Your task to perform on an android device: toggle sleep mode Image 0: 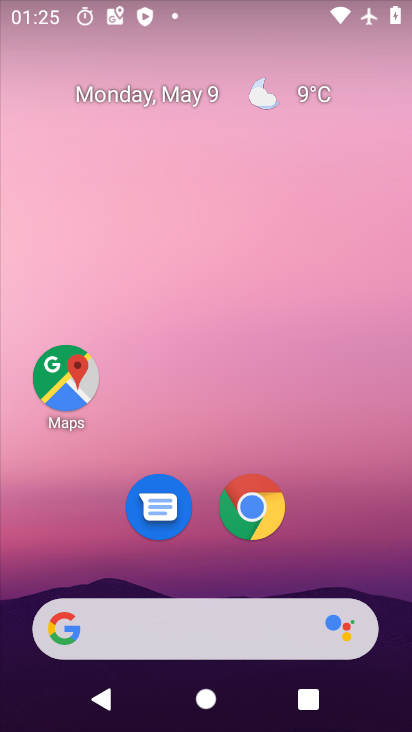
Step 0: drag from (220, 714) to (204, 168)
Your task to perform on an android device: toggle sleep mode Image 1: 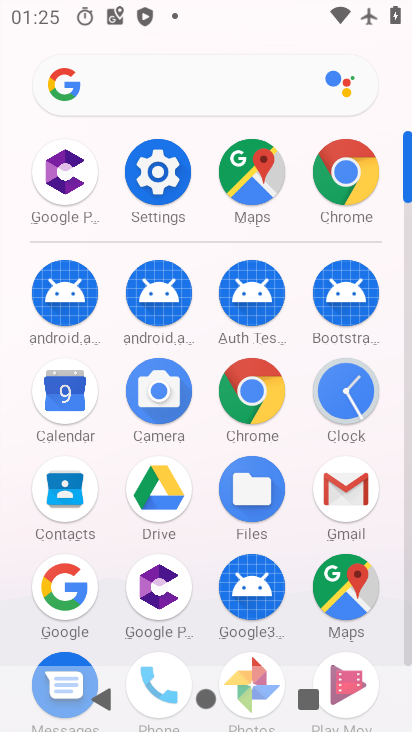
Step 1: click (159, 169)
Your task to perform on an android device: toggle sleep mode Image 2: 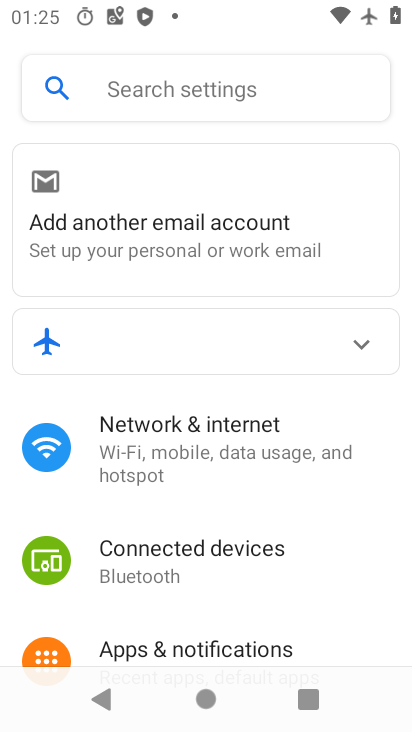
Step 2: drag from (206, 610) to (216, 211)
Your task to perform on an android device: toggle sleep mode Image 3: 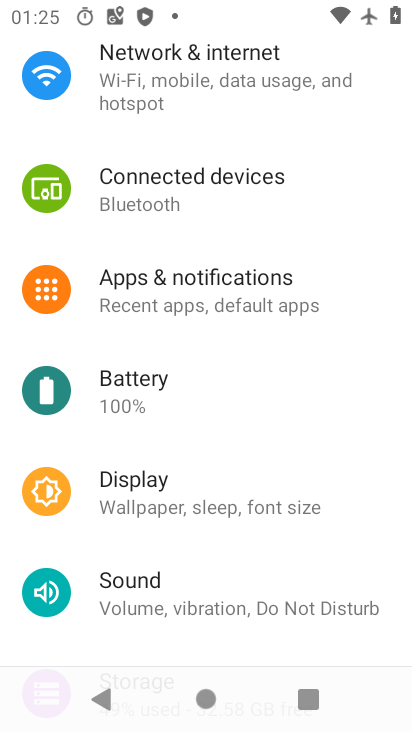
Step 3: drag from (227, 631) to (237, 236)
Your task to perform on an android device: toggle sleep mode Image 4: 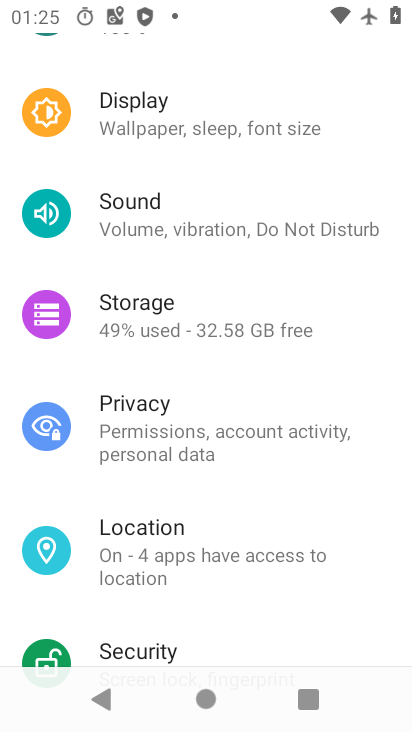
Step 4: drag from (228, 641) to (244, 118)
Your task to perform on an android device: toggle sleep mode Image 5: 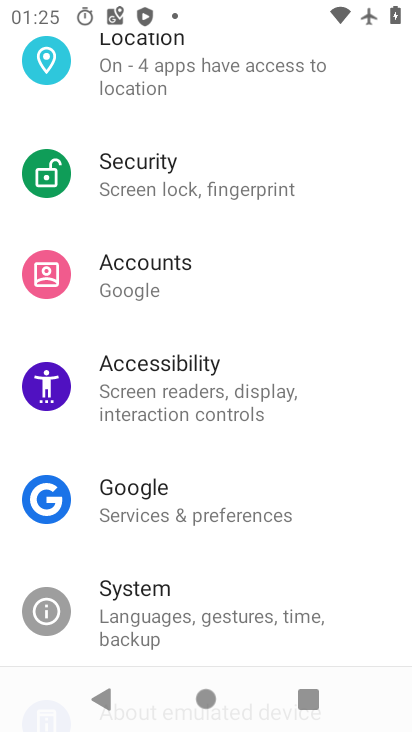
Step 5: drag from (235, 631) to (226, 264)
Your task to perform on an android device: toggle sleep mode Image 6: 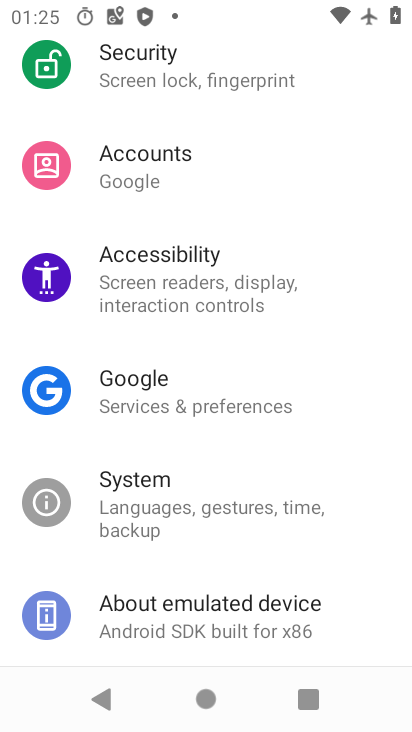
Step 6: drag from (327, 106) to (320, 696)
Your task to perform on an android device: toggle sleep mode Image 7: 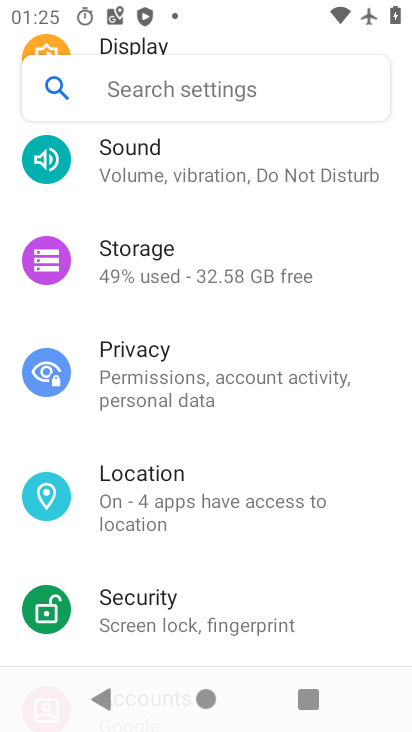
Step 7: drag from (381, 149) to (371, 593)
Your task to perform on an android device: toggle sleep mode Image 8: 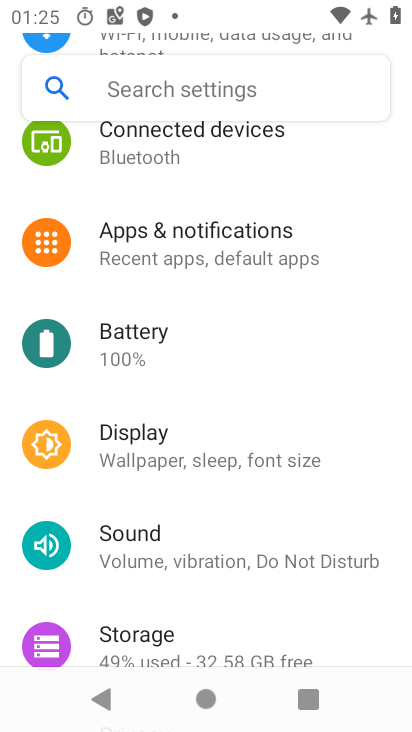
Step 8: drag from (386, 143) to (388, 280)
Your task to perform on an android device: toggle sleep mode Image 9: 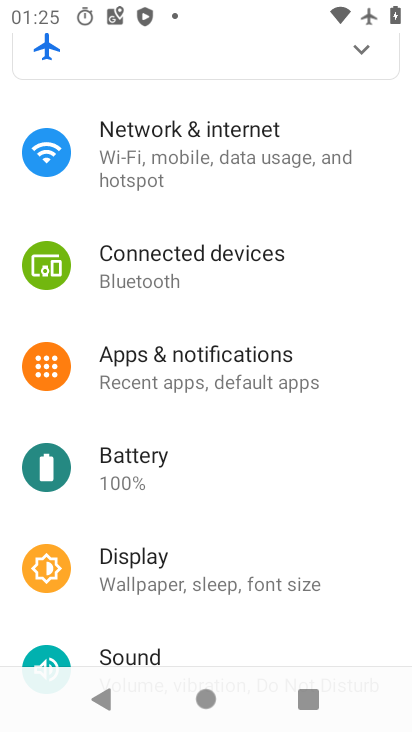
Step 9: click (225, 582)
Your task to perform on an android device: toggle sleep mode Image 10: 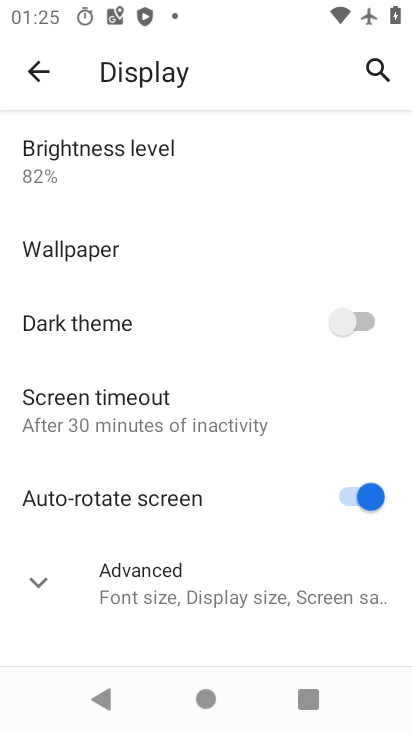
Step 10: click (31, 69)
Your task to perform on an android device: toggle sleep mode Image 11: 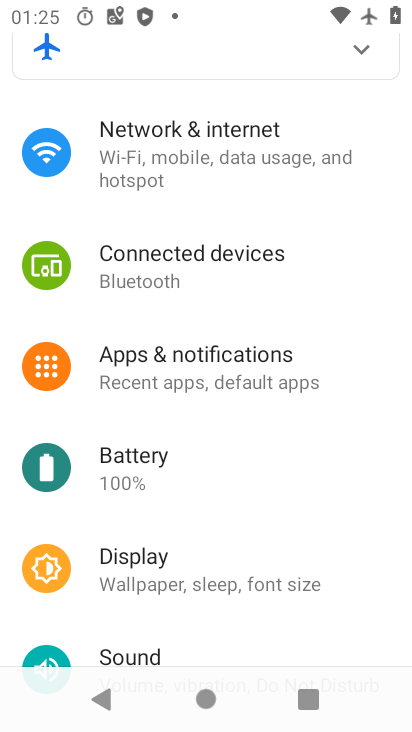
Step 11: task complete